Your task to perform on an android device: Go to internet settings Image 0: 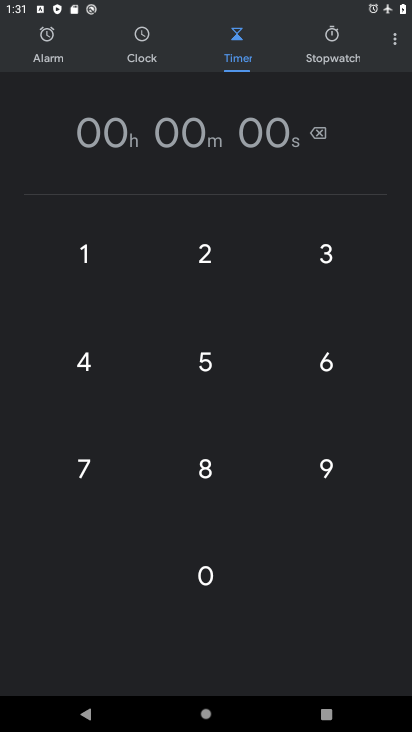
Step 0: press home button
Your task to perform on an android device: Go to internet settings Image 1: 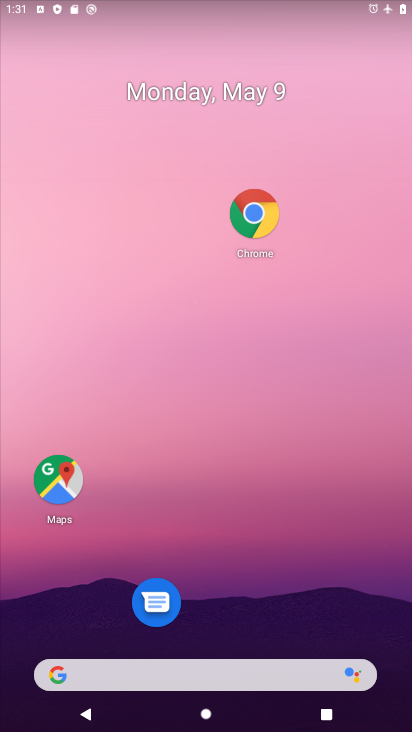
Step 1: drag from (312, 410) to (312, 108)
Your task to perform on an android device: Go to internet settings Image 2: 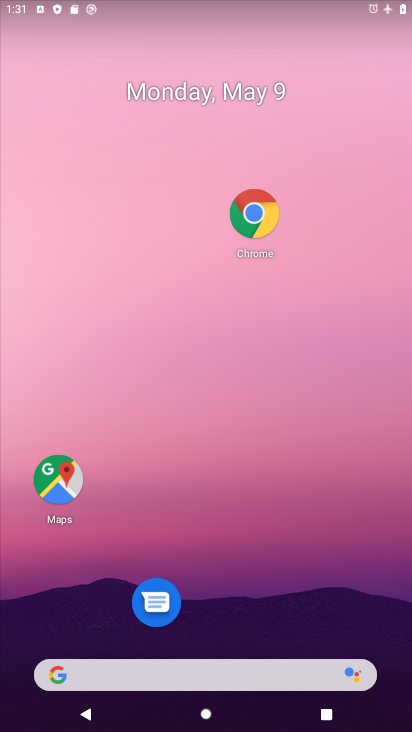
Step 2: drag from (233, 530) to (263, 114)
Your task to perform on an android device: Go to internet settings Image 3: 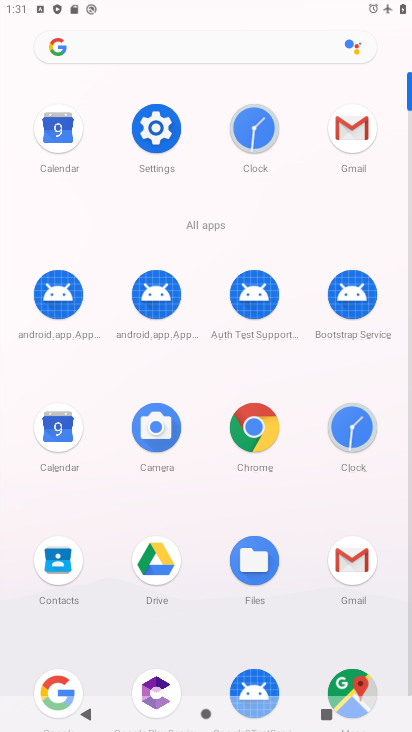
Step 3: click (144, 115)
Your task to perform on an android device: Go to internet settings Image 4: 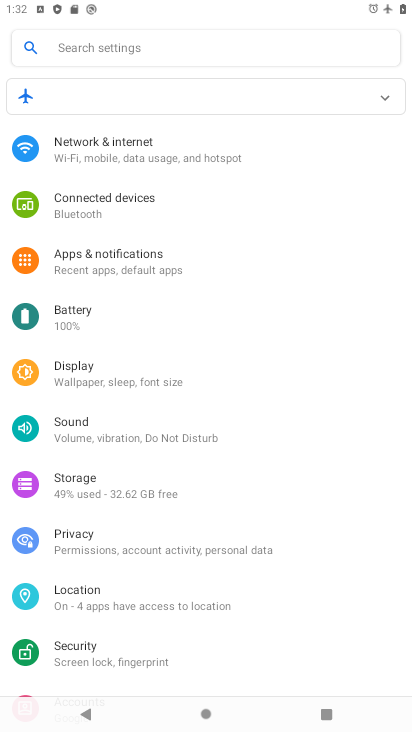
Step 4: click (238, 145)
Your task to perform on an android device: Go to internet settings Image 5: 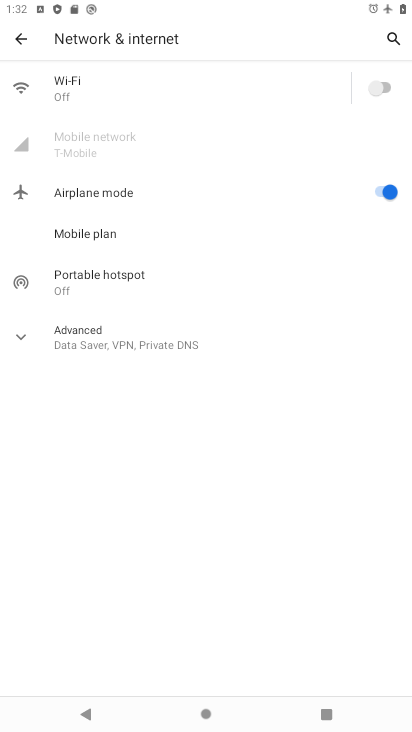
Step 5: click (369, 88)
Your task to perform on an android device: Go to internet settings Image 6: 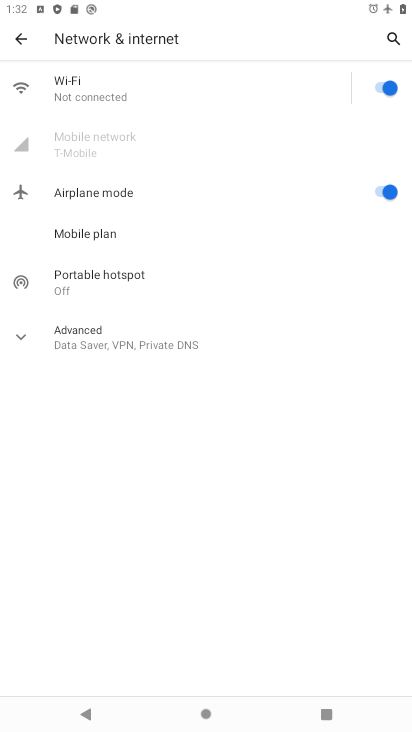
Step 6: click (378, 191)
Your task to perform on an android device: Go to internet settings Image 7: 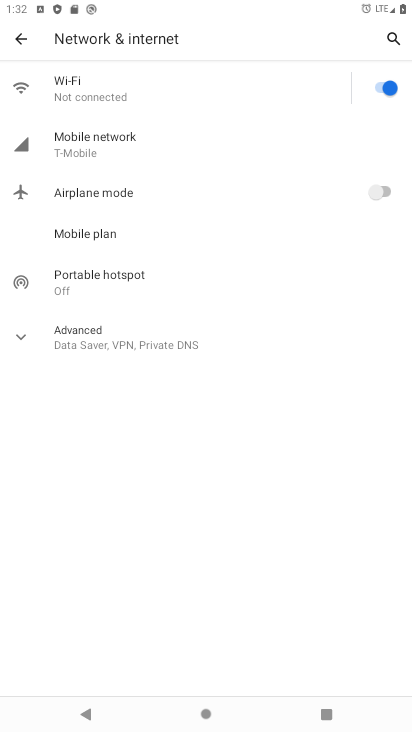
Step 7: task complete